Your task to perform on an android device: Open Google Maps Image 0: 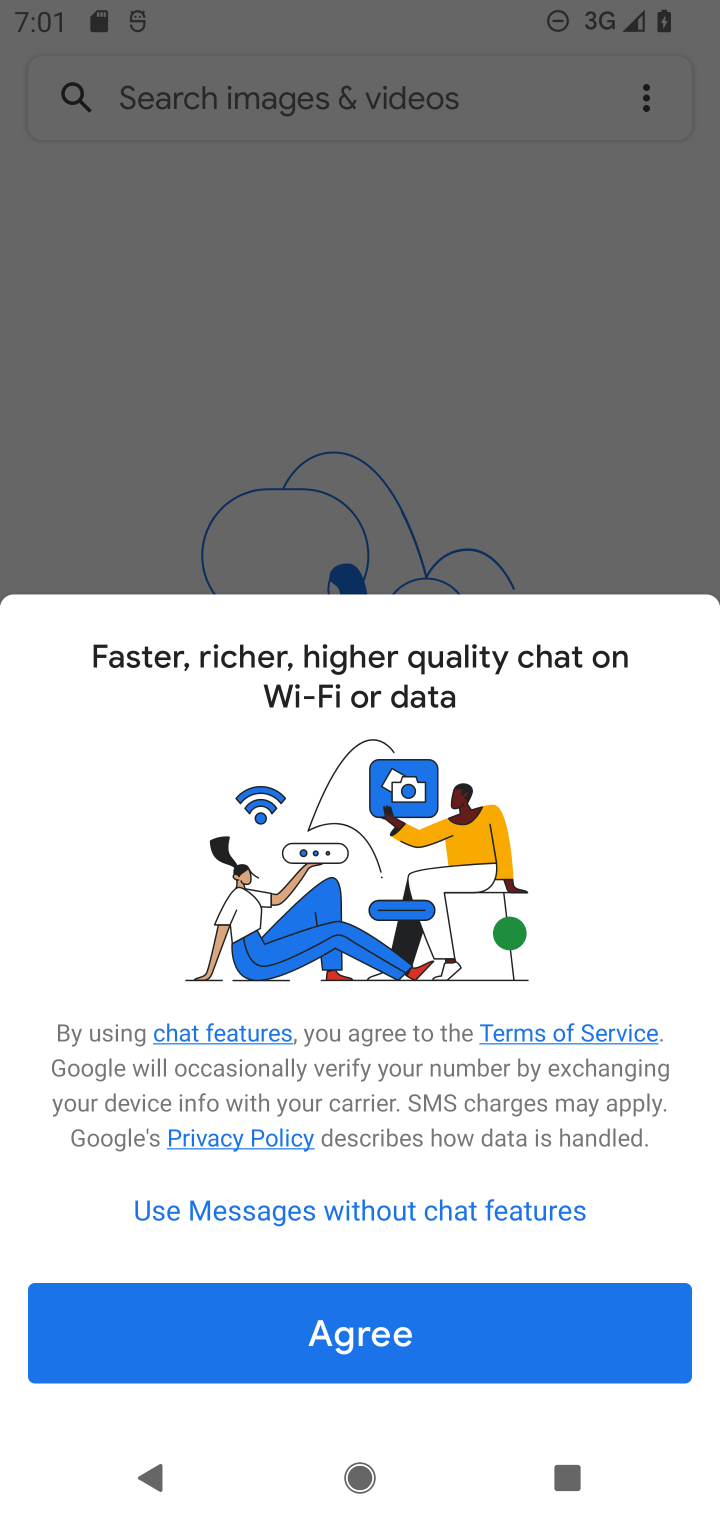
Step 0: press home button
Your task to perform on an android device: Open Google Maps Image 1: 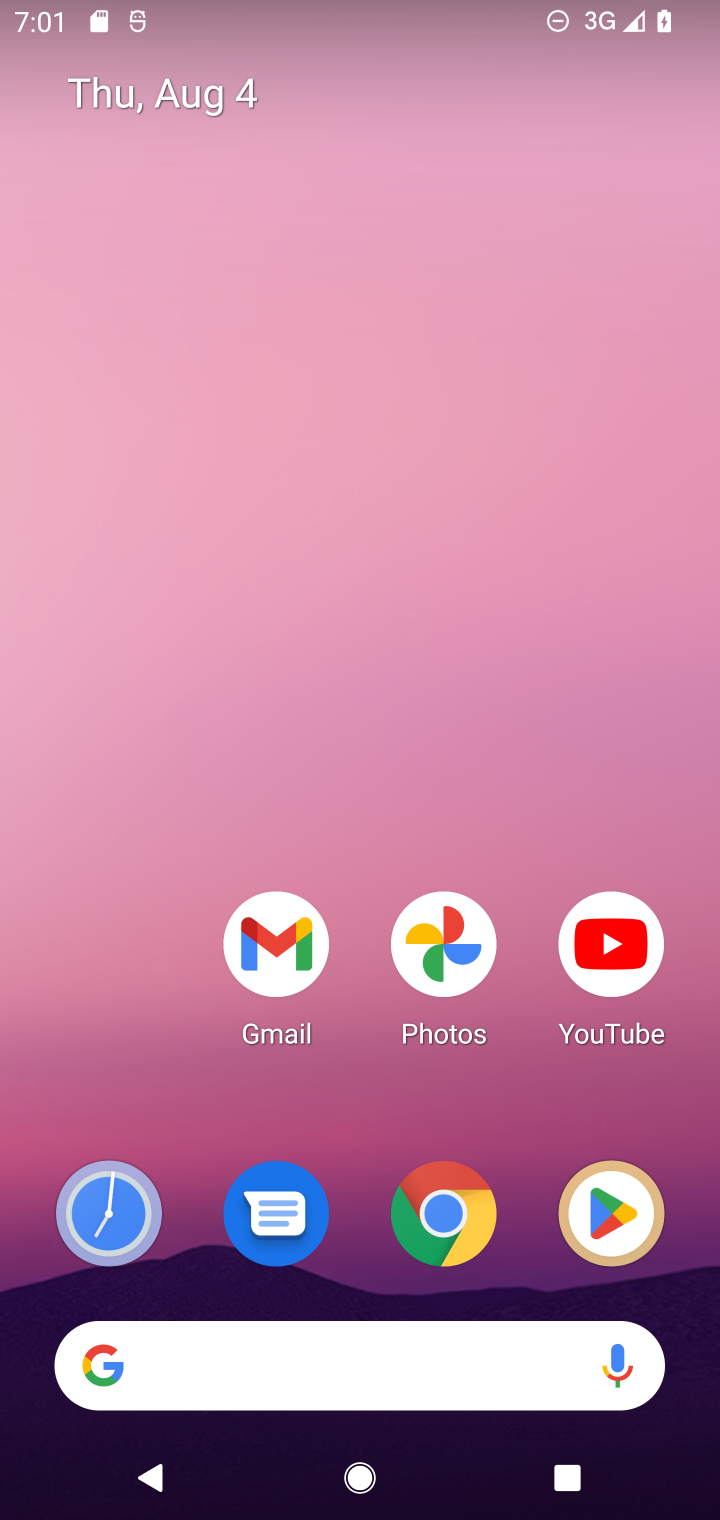
Step 1: drag from (179, 1131) to (175, 563)
Your task to perform on an android device: Open Google Maps Image 2: 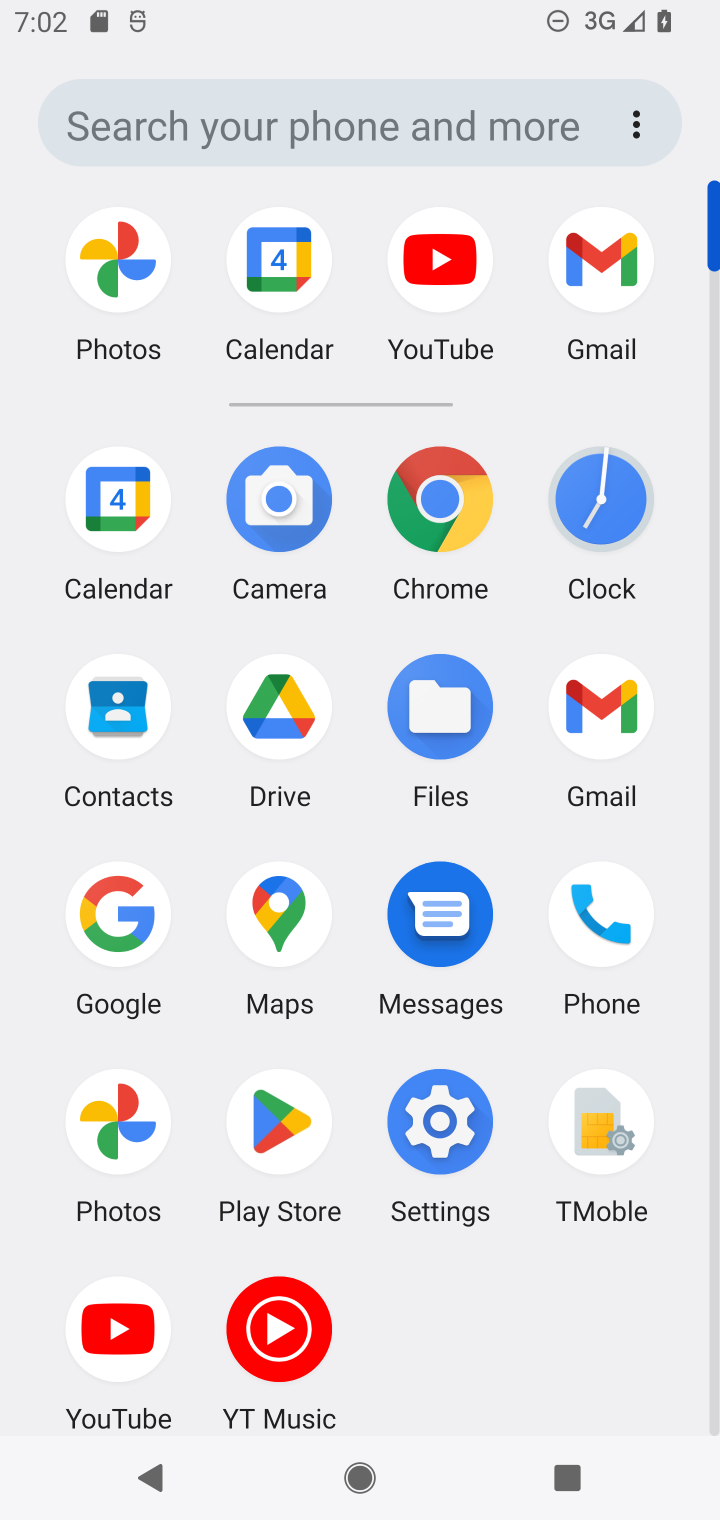
Step 2: click (295, 908)
Your task to perform on an android device: Open Google Maps Image 3: 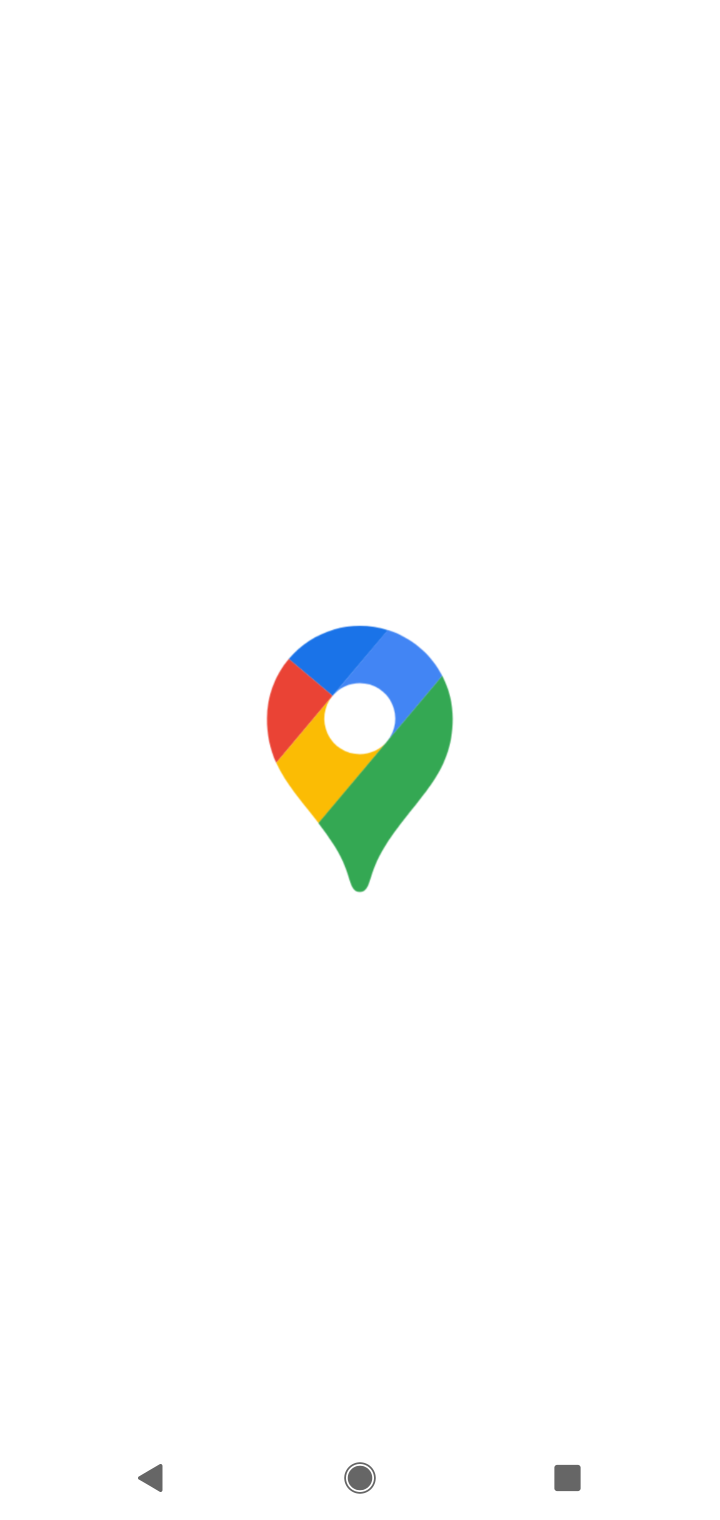
Step 3: task complete